Your task to perform on an android device: Go to Reddit.com Image 0: 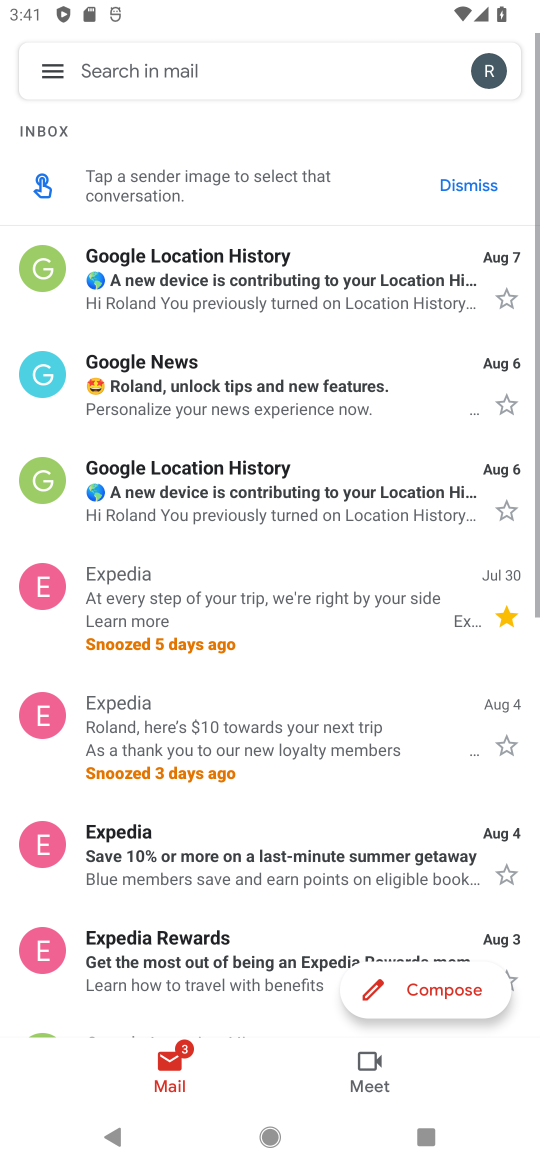
Step 0: press home button
Your task to perform on an android device: Go to Reddit.com Image 1: 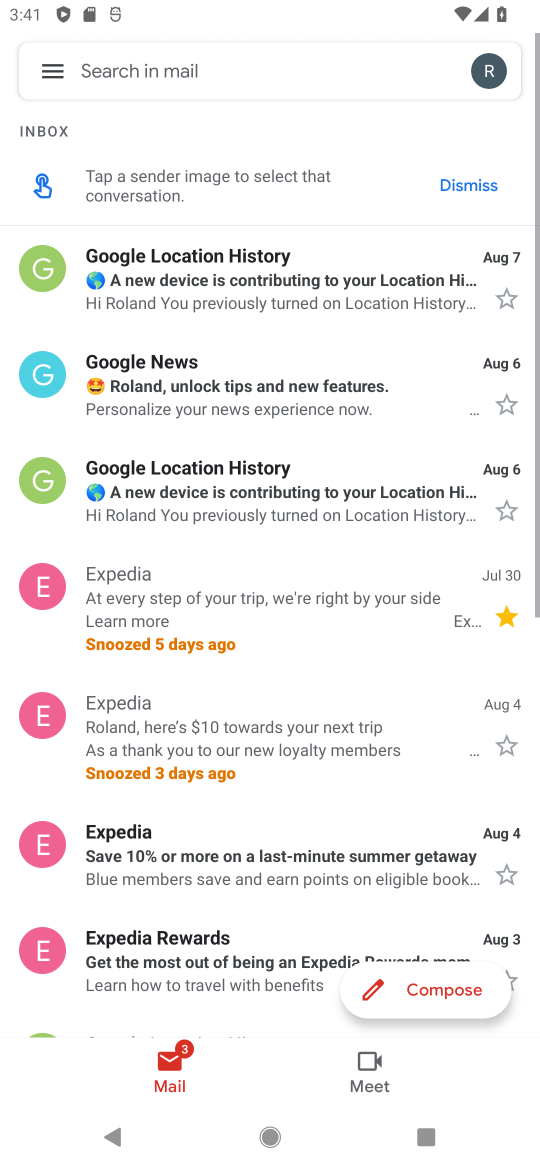
Step 1: press home button
Your task to perform on an android device: Go to Reddit.com Image 2: 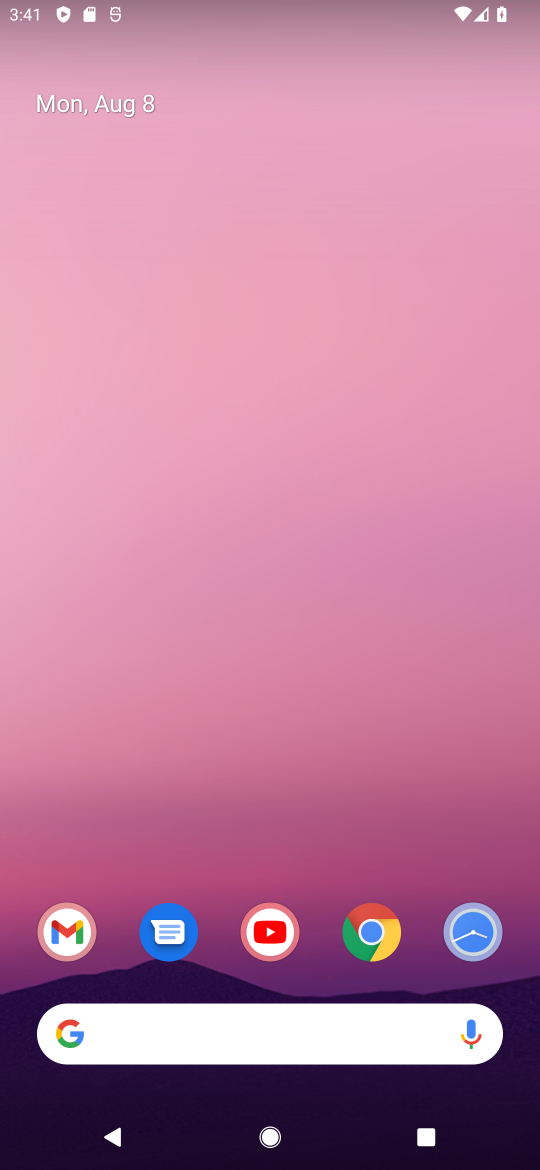
Step 2: click (322, 1033)
Your task to perform on an android device: Go to Reddit.com Image 3: 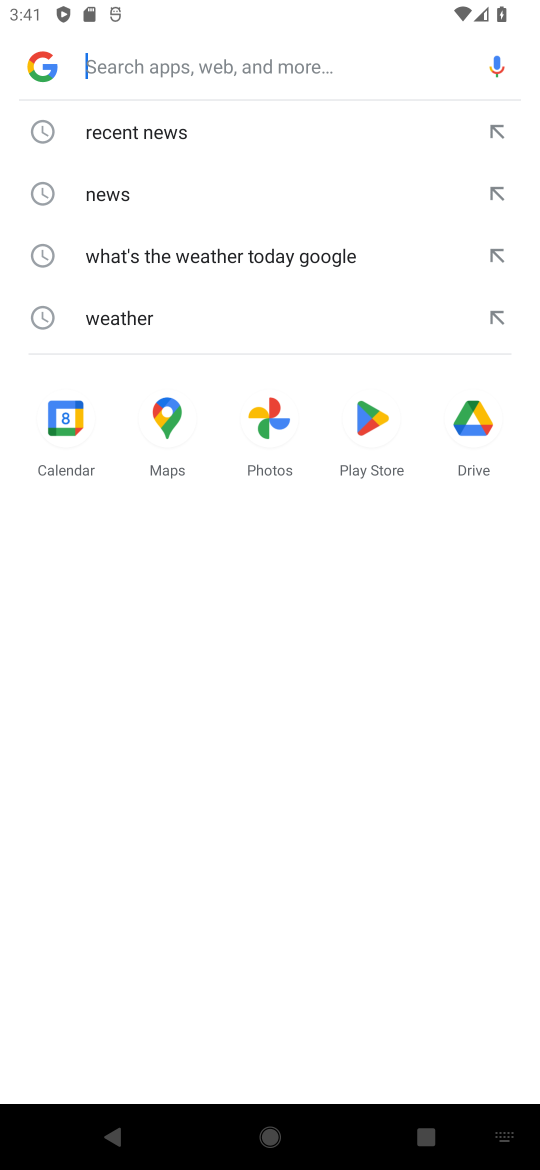
Step 3: type "reddit.com"
Your task to perform on an android device: Go to Reddit.com Image 4: 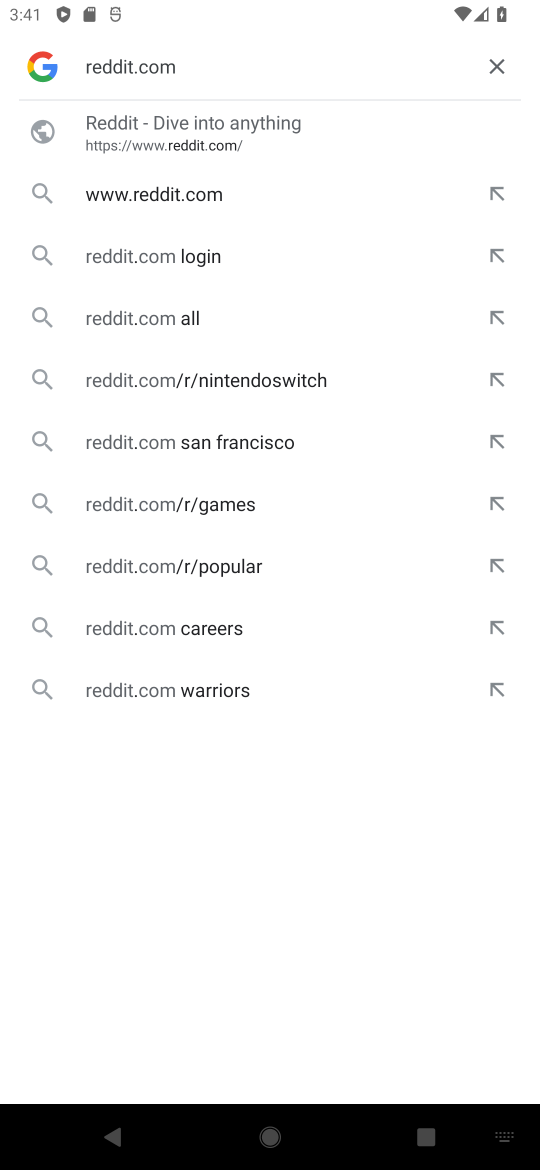
Step 4: click (138, 132)
Your task to perform on an android device: Go to Reddit.com Image 5: 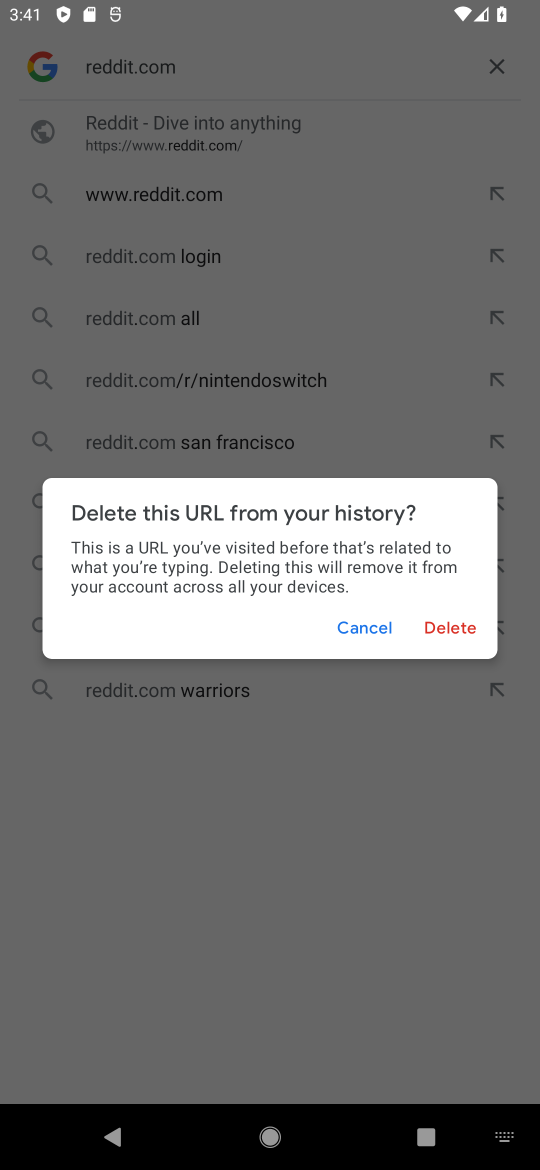
Step 5: click (371, 642)
Your task to perform on an android device: Go to Reddit.com Image 6: 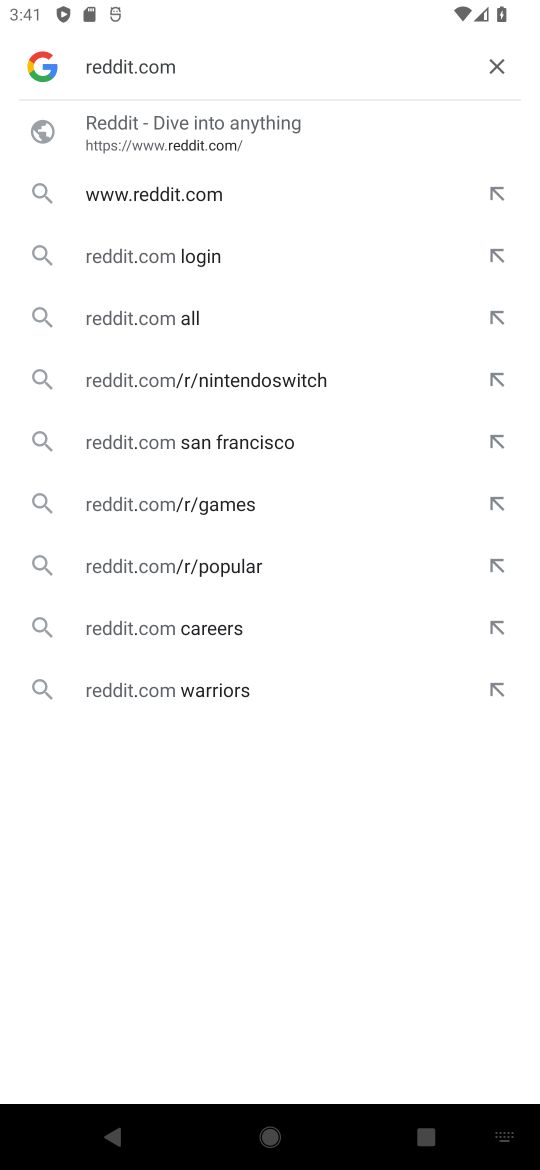
Step 6: click (228, 112)
Your task to perform on an android device: Go to Reddit.com Image 7: 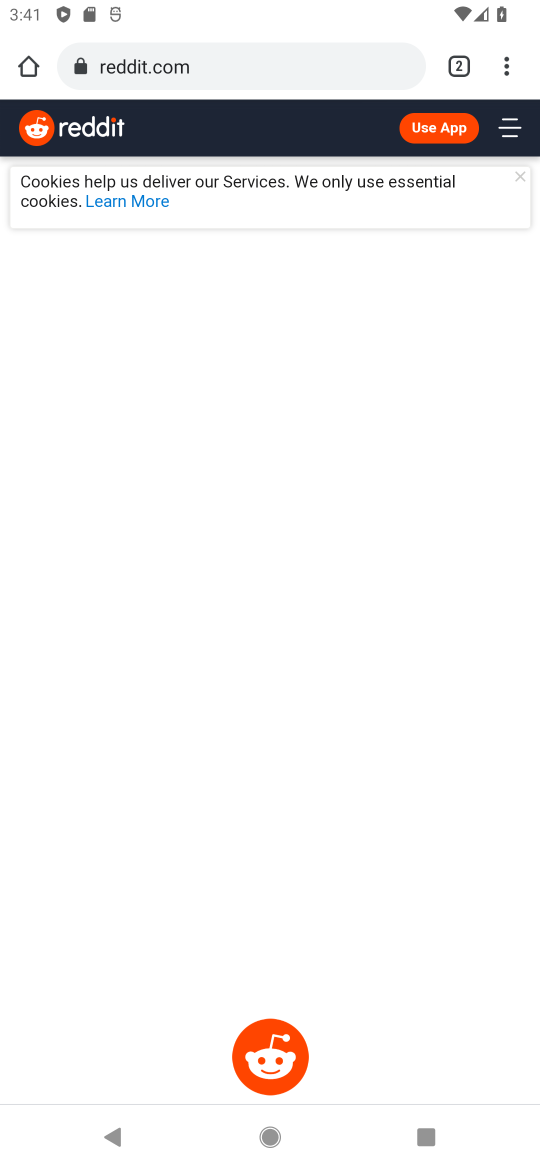
Step 7: task complete